Your task to perform on an android device: change text size in settings app Image 0: 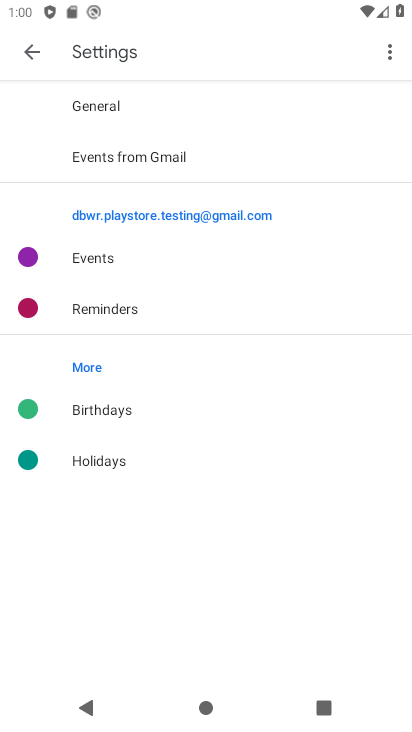
Step 0: press home button
Your task to perform on an android device: change text size in settings app Image 1: 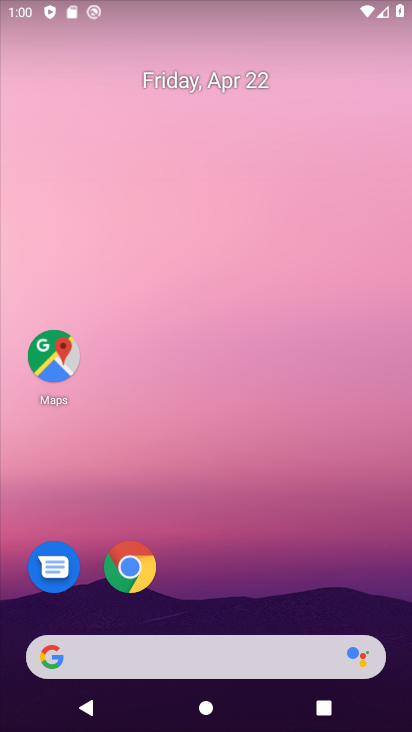
Step 1: drag from (293, 483) to (269, 69)
Your task to perform on an android device: change text size in settings app Image 2: 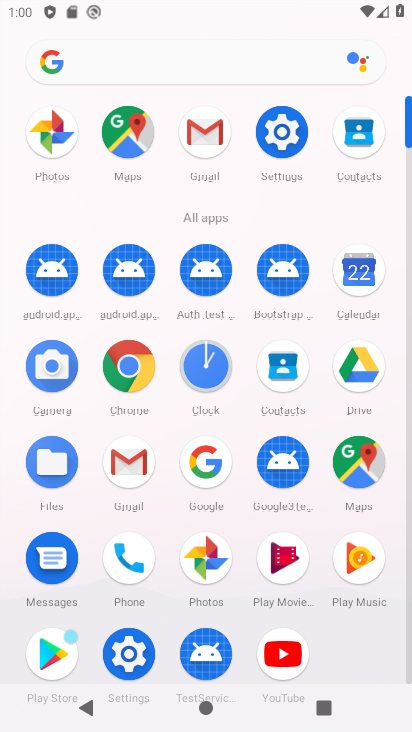
Step 2: click (293, 144)
Your task to perform on an android device: change text size in settings app Image 3: 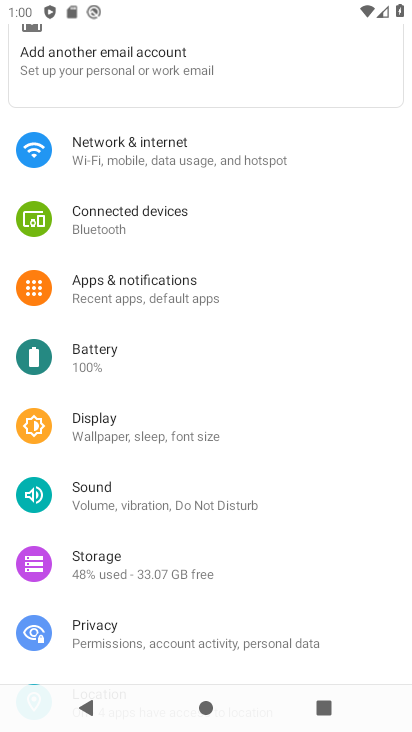
Step 3: drag from (148, 617) to (156, 466)
Your task to perform on an android device: change text size in settings app Image 4: 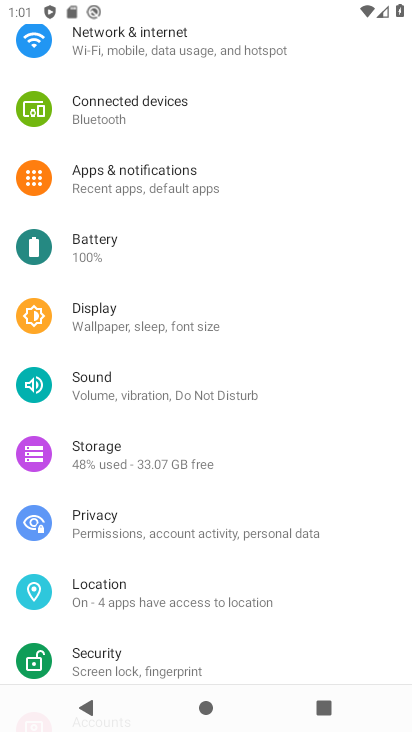
Step 4: drag from (173, 586) to (168, 533)
Your task to perform on an android device: change text size in settings app Image 5: 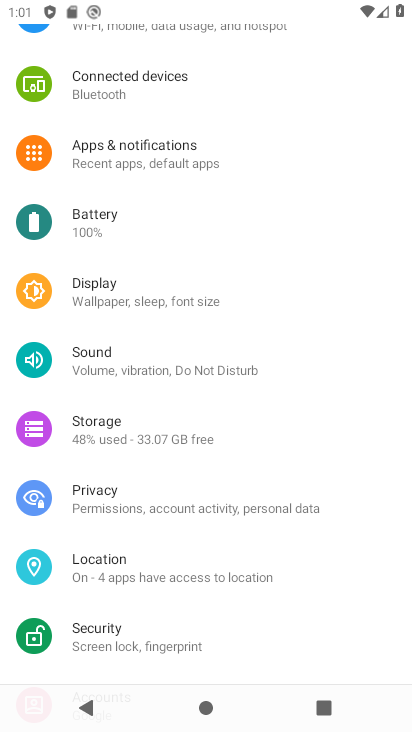
Step 5: click (201, 301)
Your task to perform on an android device: change text size in settings app Image 6: 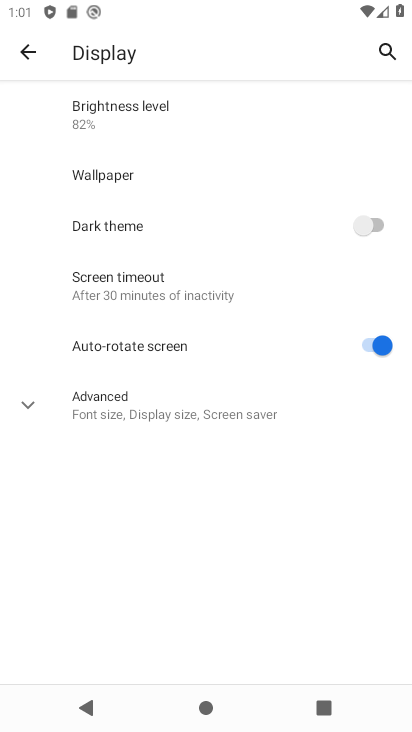
Step 6: click (145, 407)
Your task to perform on an android device: change text size in settings app Image 7: 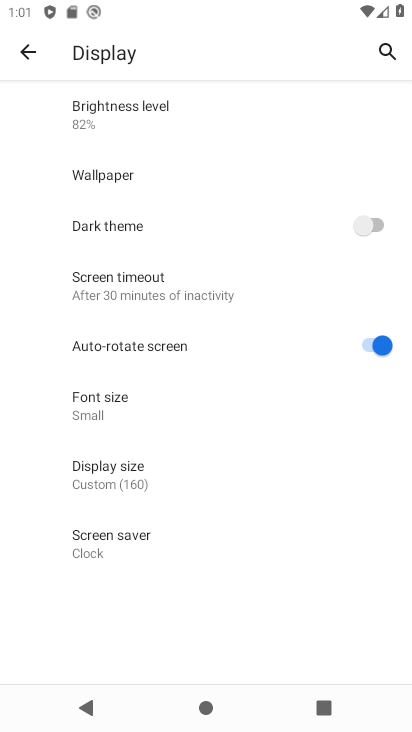
Step 7: click (101, 388)
Your task to perform on an android device: change text size in settings app Image 8: 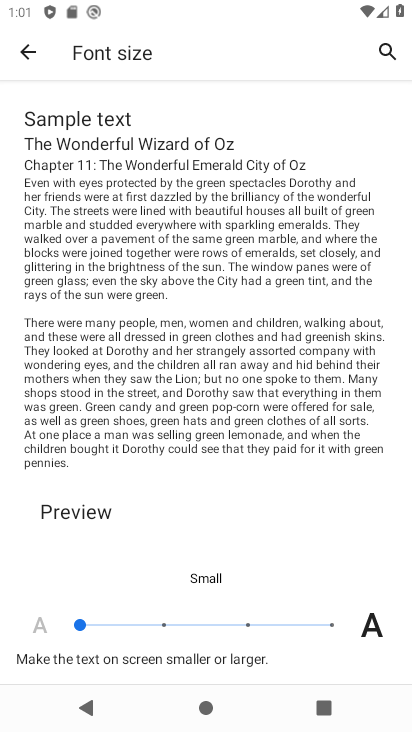
Step 8: click (323, 622)
Your task to perform on an android device: change text size in settings app Image 9: 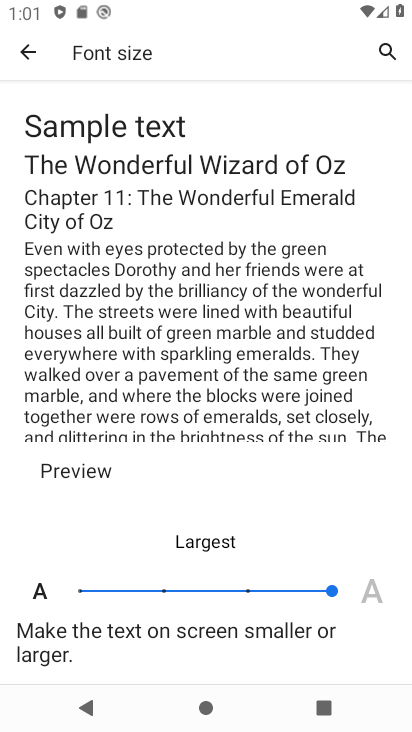
Step 9: task complete